Your task to perform on an android device: turn on sleep mode Image 0: 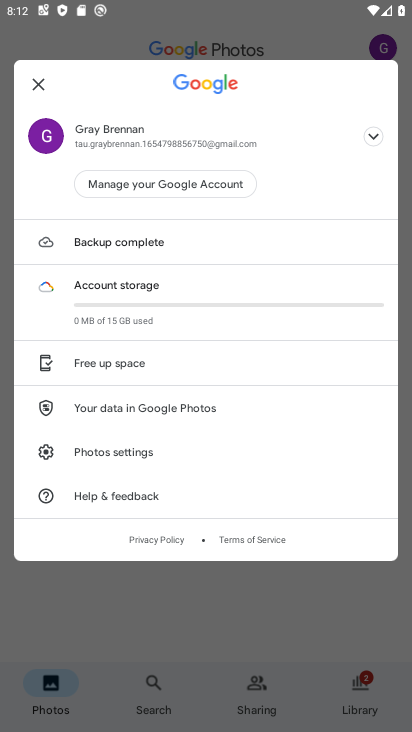
Step 0: press home button
Your task to perform on an android device: turn on sleep mode Image 1: 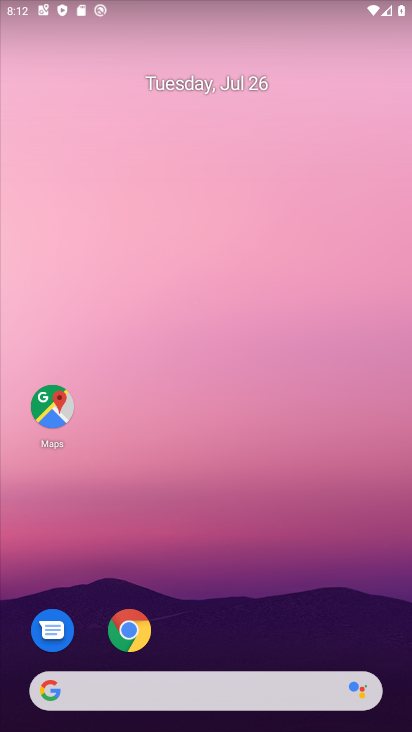
Step 1: drag from (249, 631) to (176, 12)
Your task to perform on an android device: turn on sleep mode Image 2: 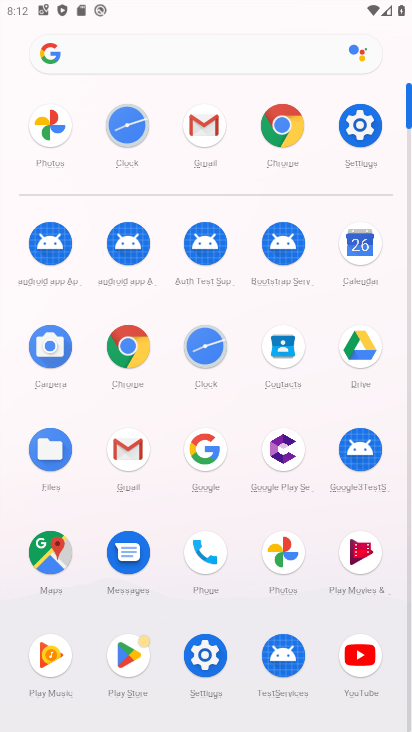
Step 2: click (366, 155)
Your task to perform on an android device: turn on sleep mode Image 3: 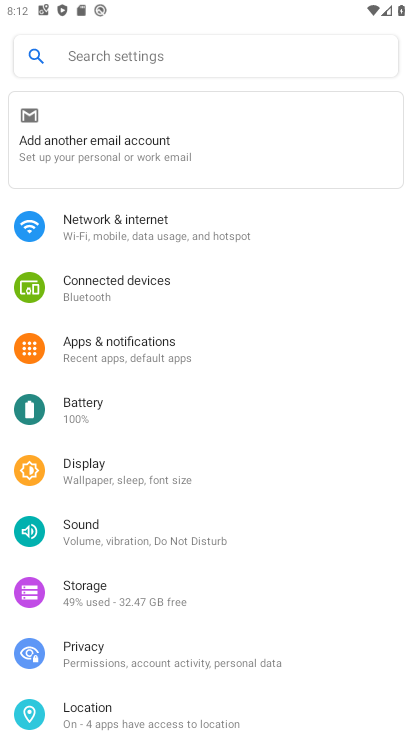
Step 3: click (159, 459)
Your task to perform on an android device: turn on sleep mode Image 4: 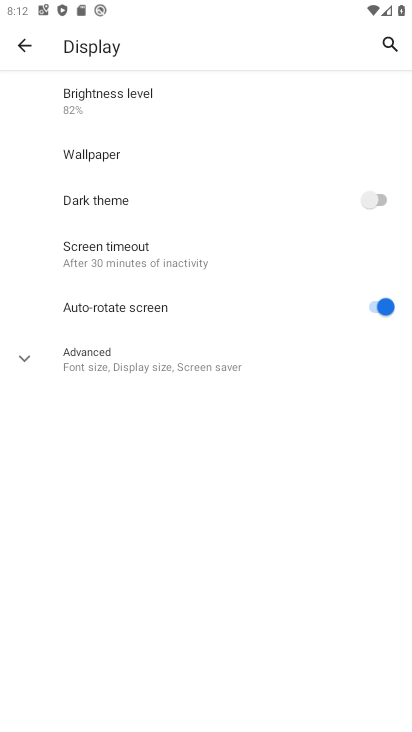
Step 4: click (176, 265)
Your task to perform on an android device: turn on sleep mode Image 5: 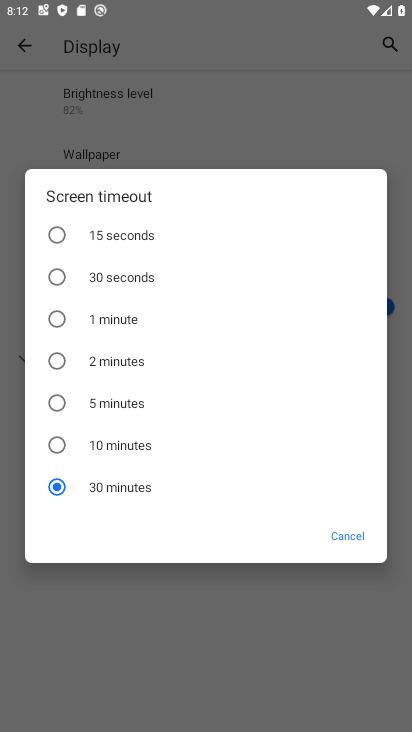
Step 5: click (82, 238)
Your task to perform on an android device: turn on sleep mode Image 6: 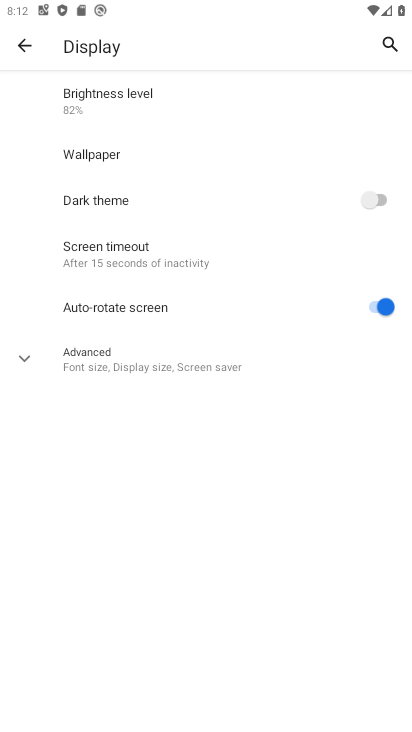
Step 6: task complete